Your task to perform on an android device: toggle javascript in the chrome app Image 0: 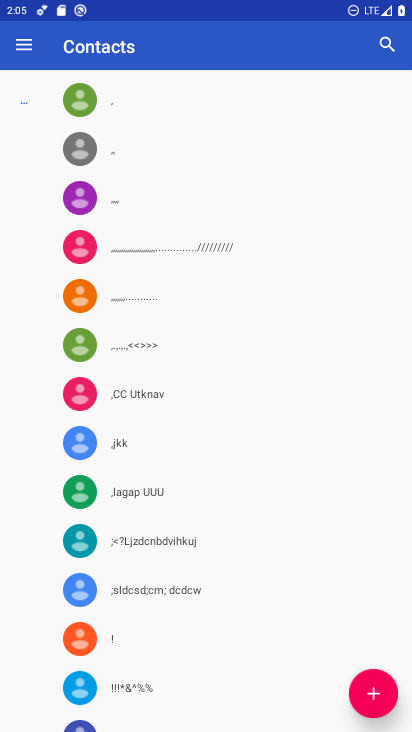
Step 0: press home button
Your task to perform on an android device: toggle javascript in the chrome app Image 1: 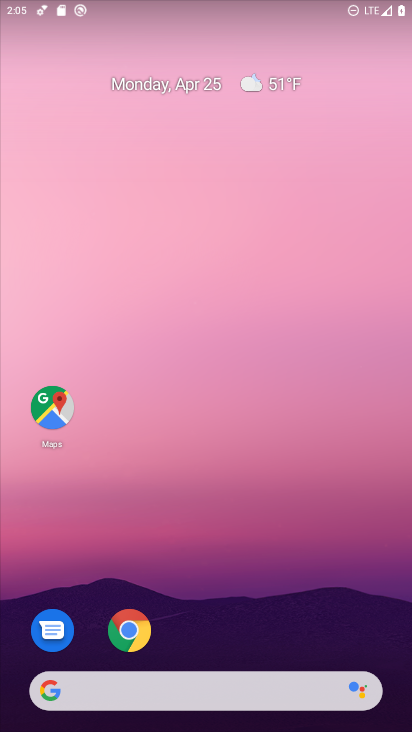
Step 1: drag from (258, 607) to (276, 45)
Your task to perform on an android device: toggle javascript in the chrome app Image 2: 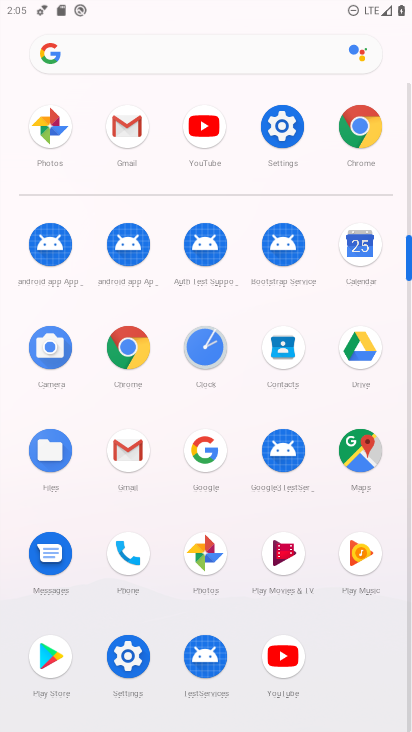
Step 2: click (347, 130)
Your task to perform on an android device: toggle javascript in the chrome app Image 3: 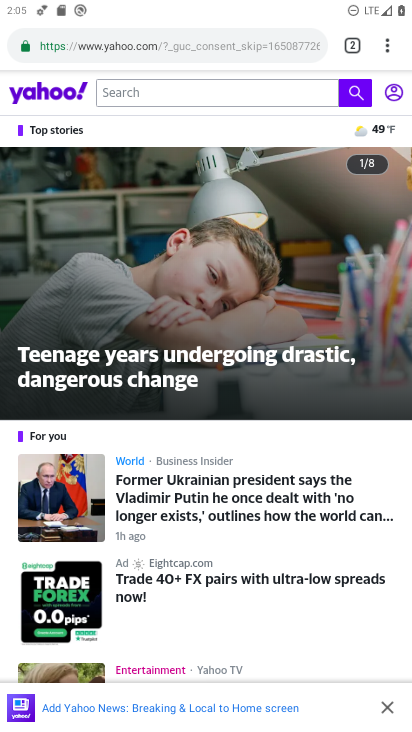
Step 3: drag from (393, 51) to (251, 550)
Your task to perform on an android device: toggle javascript in the chrome app Image 4: 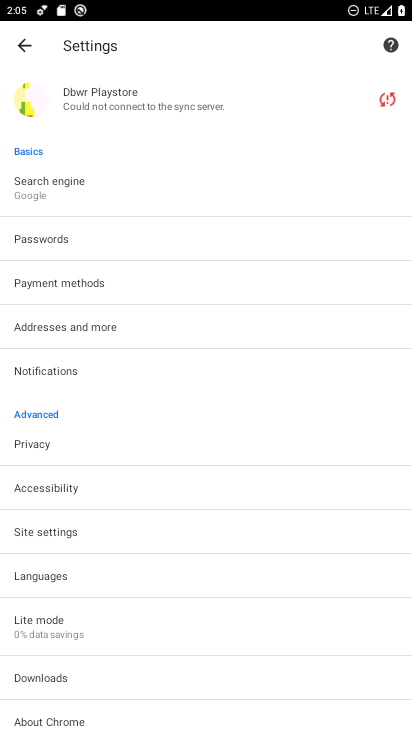
Step 4: drag from (171, 559) to (199, 217)
Your task to perform on an android device: toggle javascript in the chrome app Image 5: 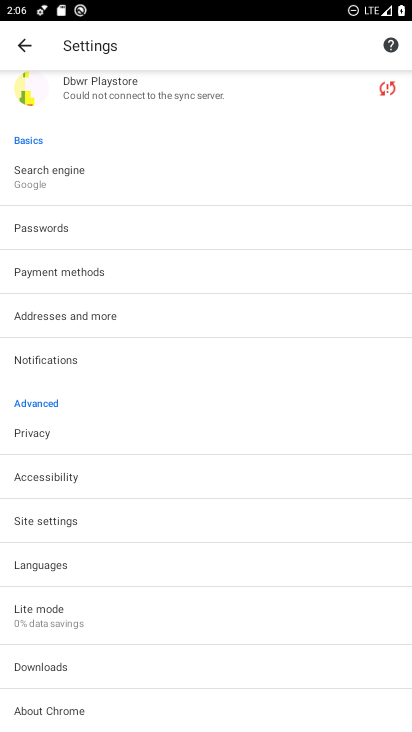
Step 5: click (83, 518)
Your task to perform on an android device: toggle javascript in the chrome app Image 6: 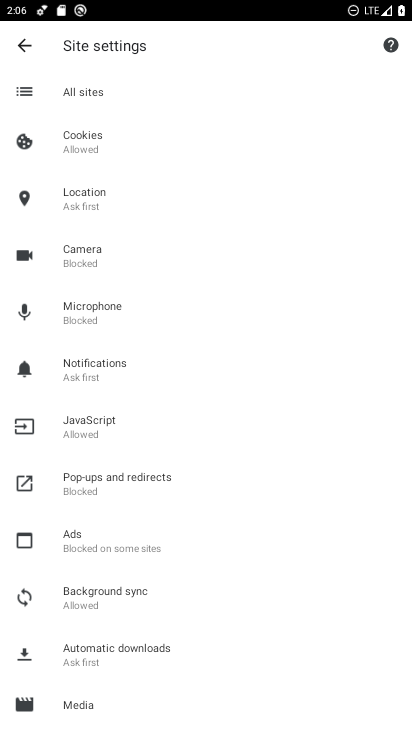
Step 6: click (123, 411)
Your task to perform on an android device: toggle javascript in the chrome app Image 7: 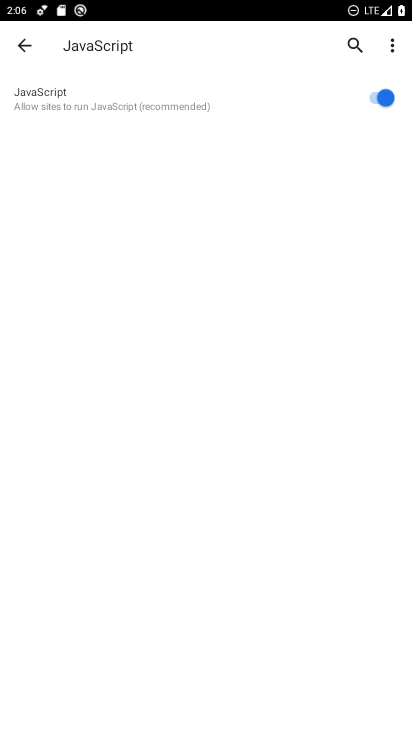
Step 7: click (365, 99)
Your task to perform on an android device: toggle javascript in the chrome app Image 8: 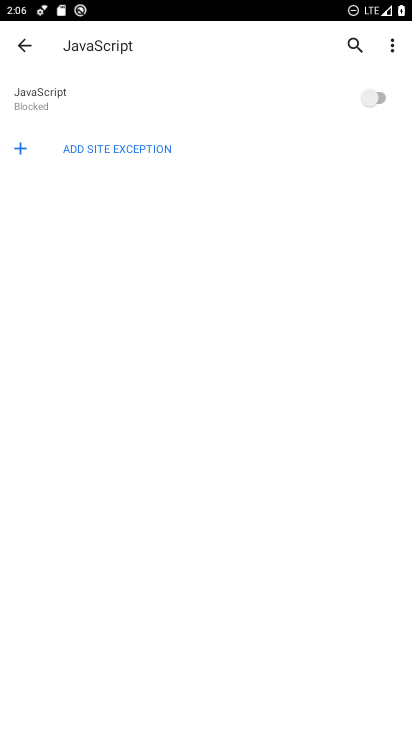
Step 8: task complete